Your task to perform on an android device: Open Google Chrome Image 0: 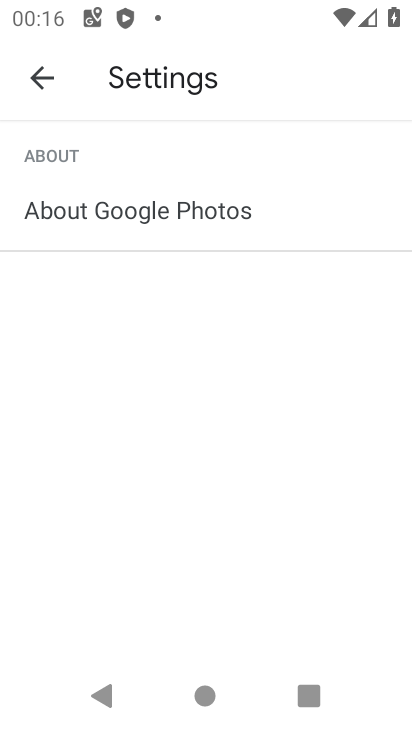
Step 0: press home button
Your task to perform on an android device: Open Google Chrome Image 1: 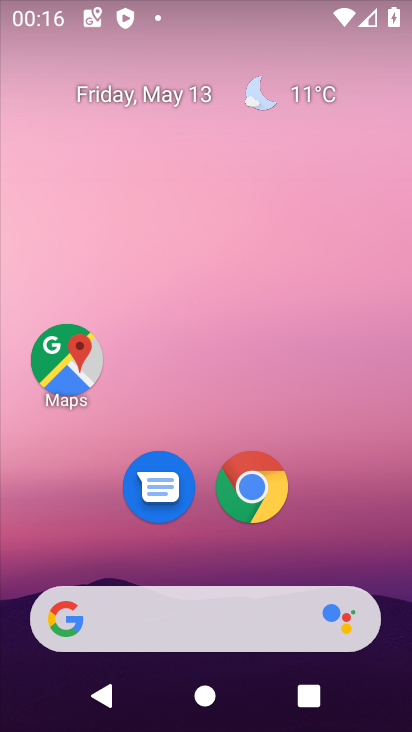
Step 1: click (247, 473)
Your task to perform on an android device: Open Google Chrome Image 2: 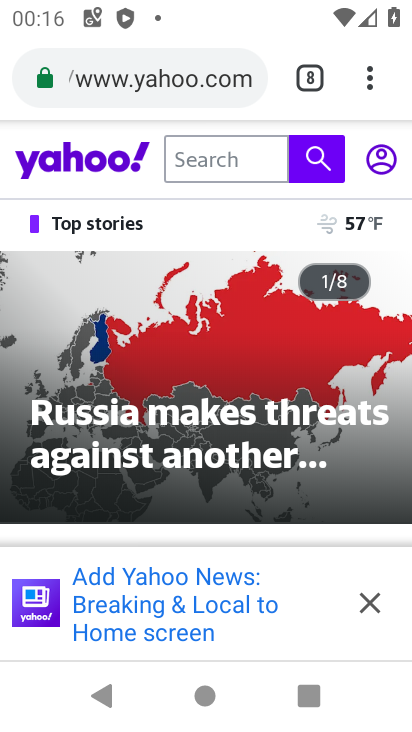
Step 2: task complete